Your task to perform on an android device: Do I have any events this weekend? Image 0: 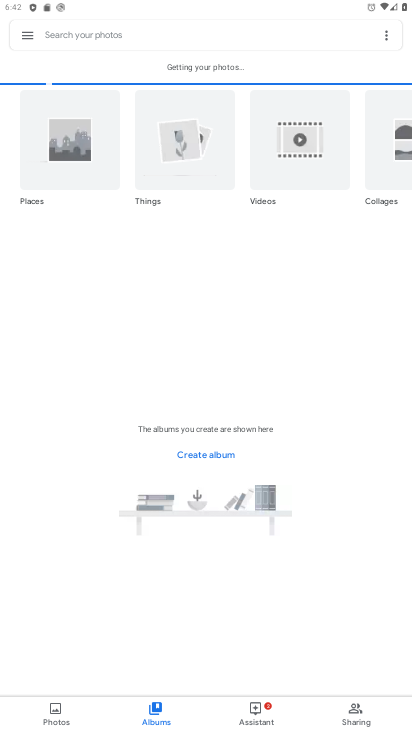
Step 0: press home button
Your task to perform on an android device: Do I have any events this weekend? Image 1: 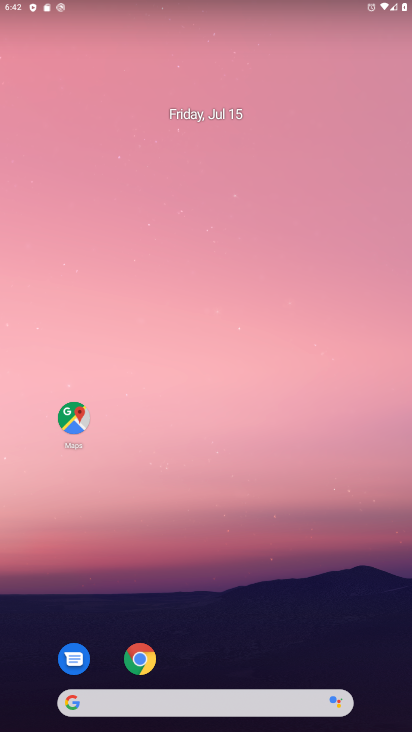
Step 1: drag from (322, 639) to (236, 169)
Your task to perform on an android device: Do I have any events this weekend? Image 2: 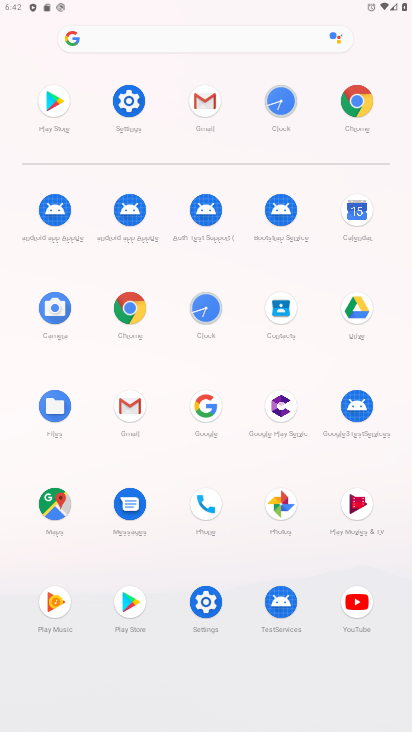
Step 2: click (356, 208)
Your task to perform on an android device: Do I have any events this weekend? Image 3: 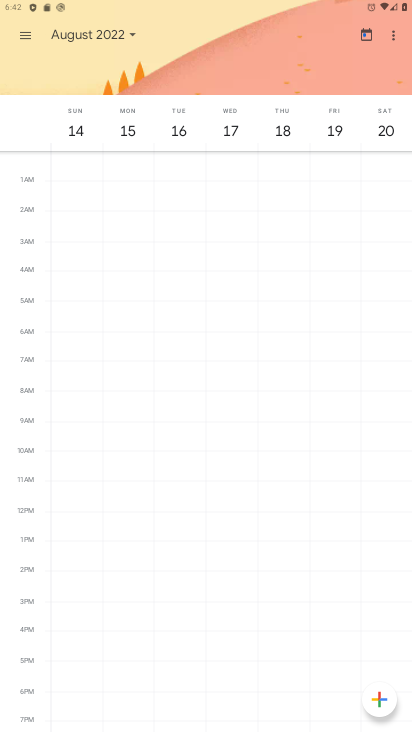
Step 3: click (25, 31)
Your task to perform on an android device: Do I have any events this weekend? Image 4: 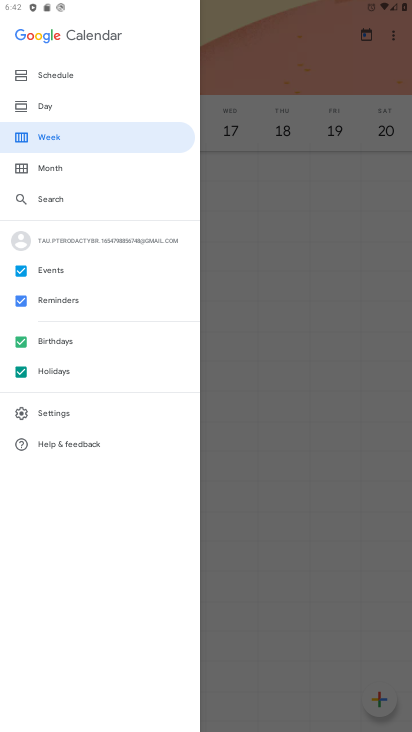
Step 4: click (214, 204)
Your task to perform on an android device: Do I have any events this weekend? Image 5: 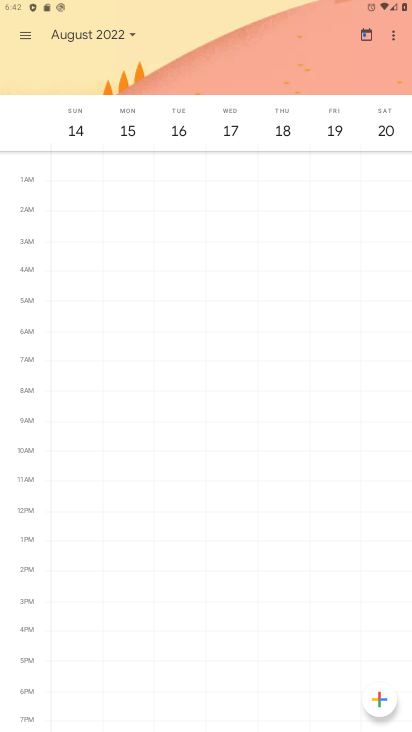
Step 5: click (130, 36)
Your task to perform on an android device: Do I have any events this weekend? Image 6: 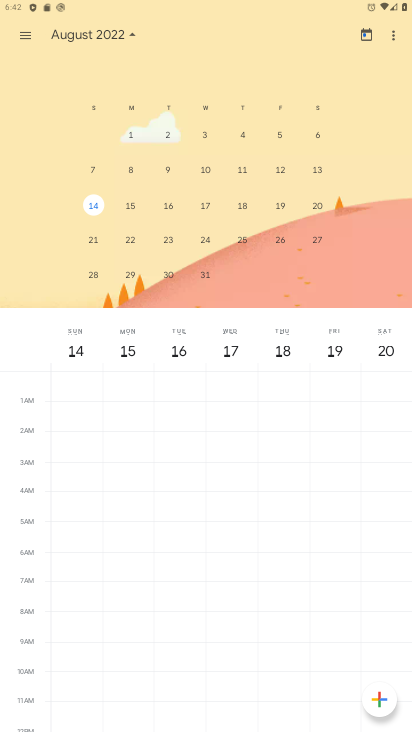
Step 6: drag from (92, 203) to (367, 209)
Your task to perform on an android device: Do I have any events this weekend? Image 7: 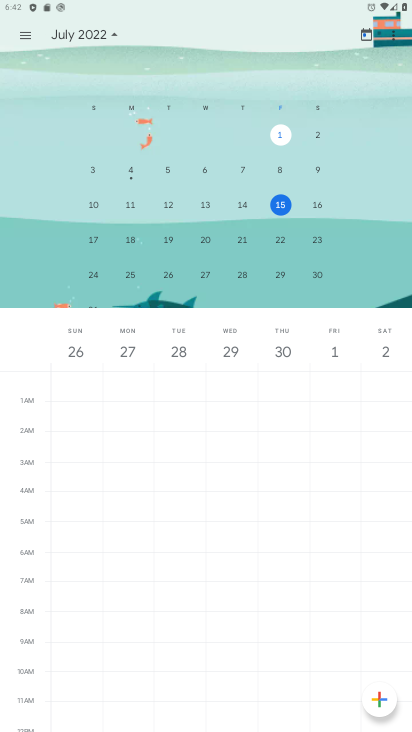
Step 7: click (89, 204)
Your task to perform on an android device: Do I have any events this weekend? Image 8: 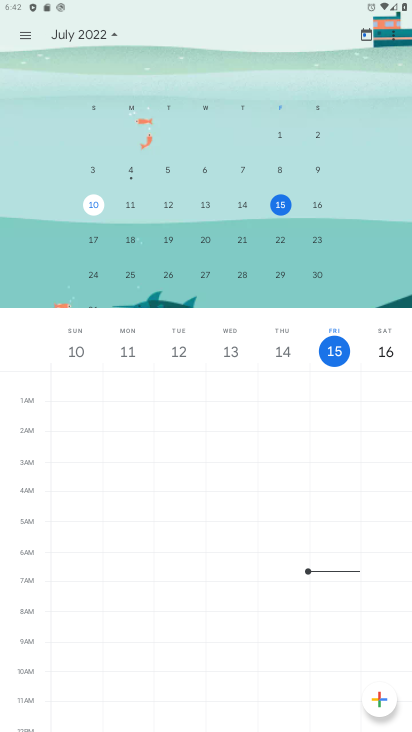
Step 8: task complete